Your task to perform on an android device: Open the web browser Image 0: 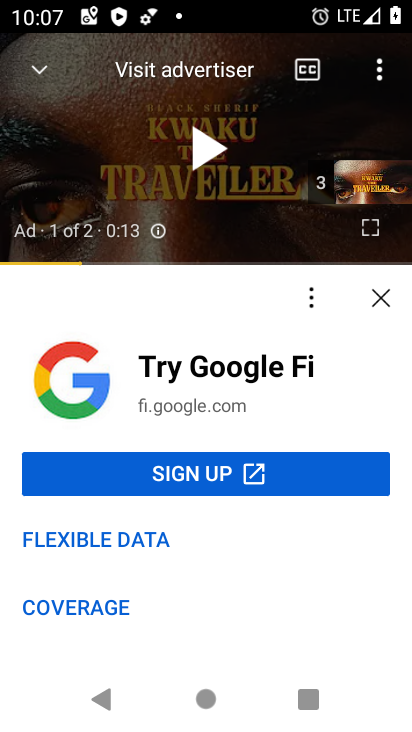
Step 0: press home button
Your task to perform on an android device: Open the web browser Image 1: 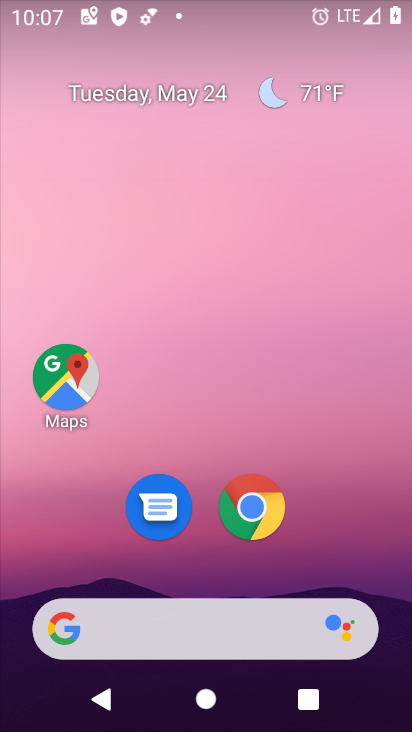
Step 1: click (250, 507)
Your task to perform on an android device: Open the web browser Image 2: 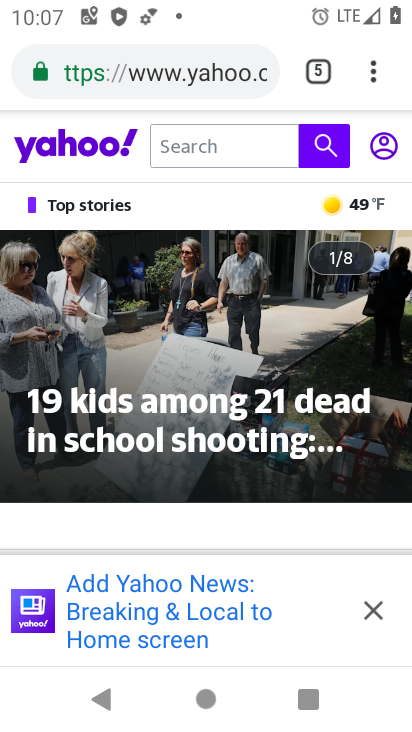
Step 2: task complete